Your task to perform on an android device: Open notification settings Image 0: 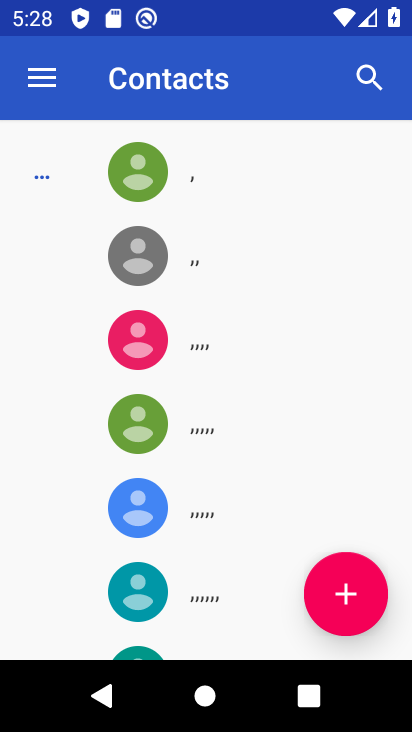
Step 0: press home button
Your task to perform on an android device: Open notification settings Image 1: 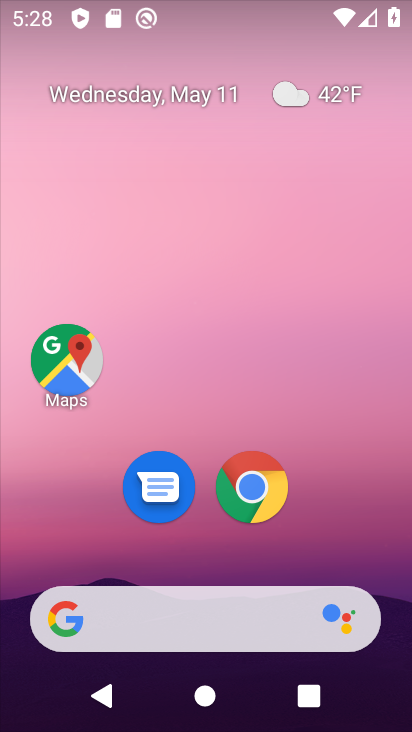
Step 1: drag from (213, 545) to (392, 1)
Your task to perform on an android device: Open notification settings Image 2: 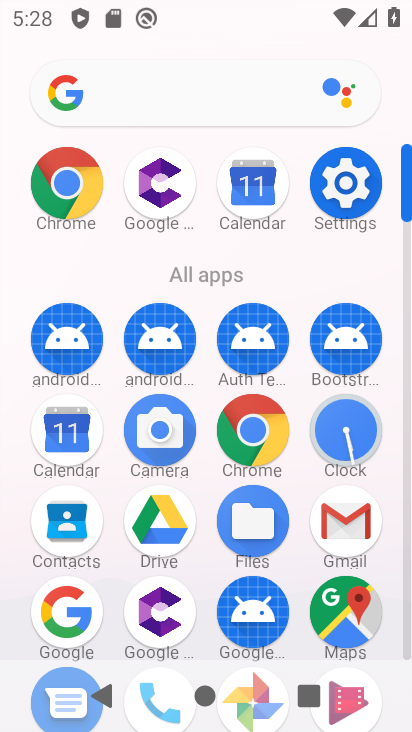
Step 2: click (365, 190)
Your task to perform on an android device: Open notification settings Image 3: 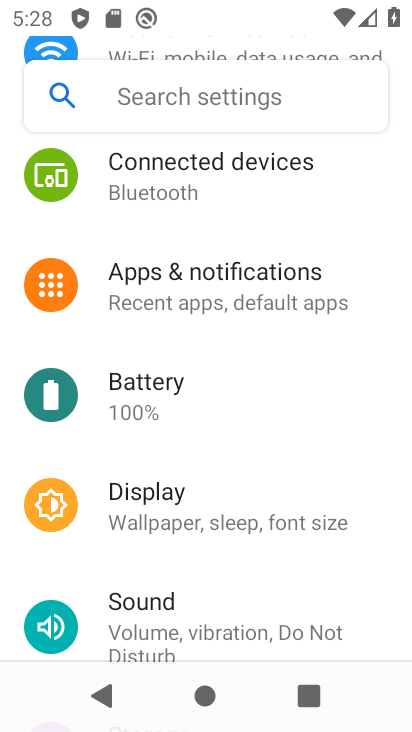
Step 3: click (251, 289)
Your task to perform on an android device: Open notification settings Image 4: 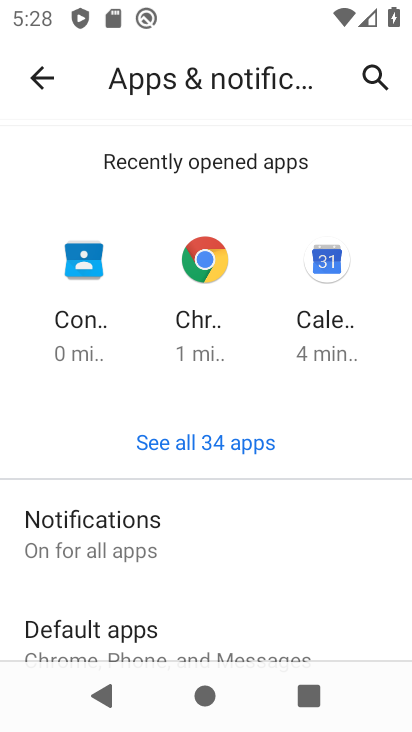
Step 4: click (147, 542)
Your task to perform on an android device: Open notification settings Image 5: 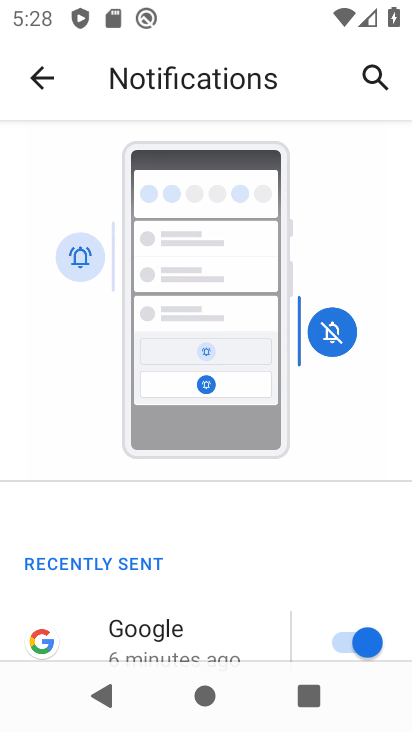
Step 5: task complete